Your task to perform on an android device: Open my contact list Image 0: 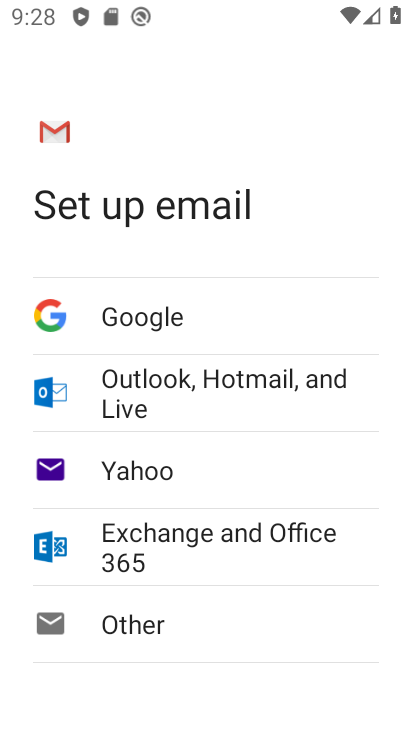
Step 0: press home button
Your task to perform on an android device: Open my contact list Image 1: 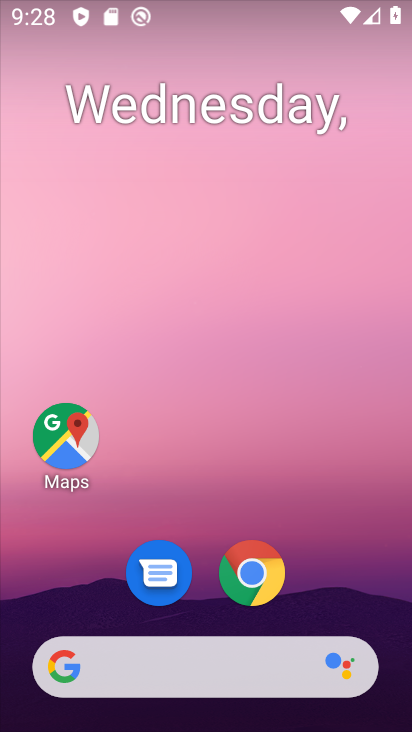
Step 1: drag from (307, 580) to (333, 274)
Your task to perform on an android device: Open my contact list Image 2: 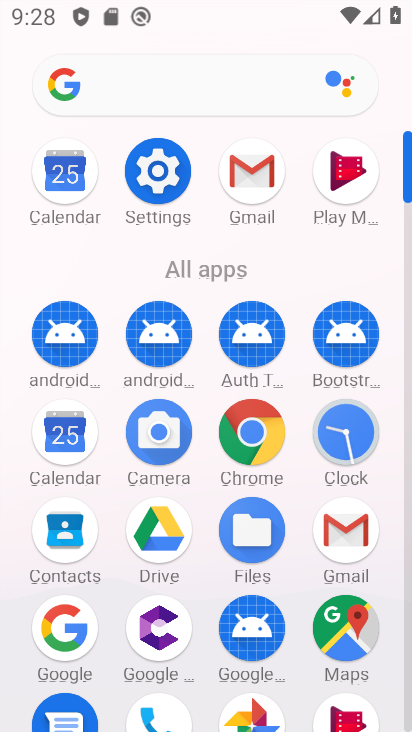
Step 2: drag from (219, 577) to (212, 316)
Your task to perform on an android device: Open my contact list Image 3: 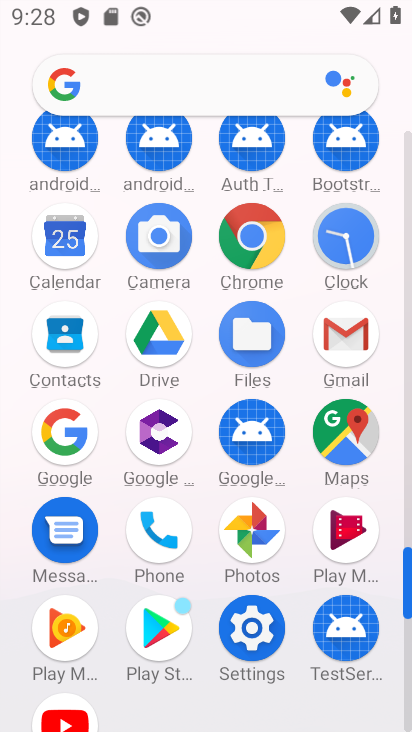
Step 3: click (154, 521)
Your task to perform on an android device: Open my contact list Image 4: 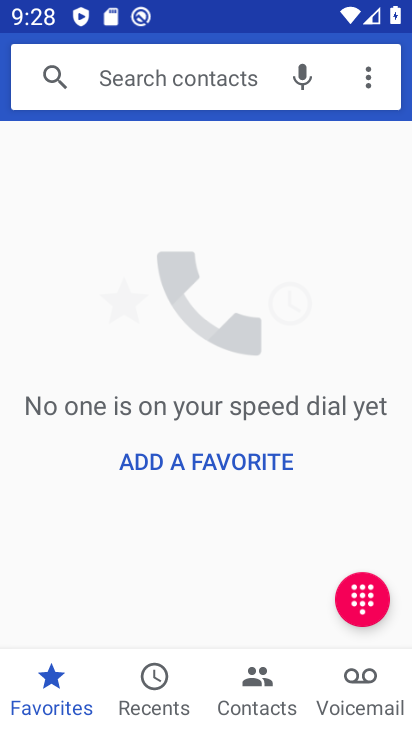
Step 4: click (246, 682)
Your task to perform on an android device: Open my contact list Image 5: 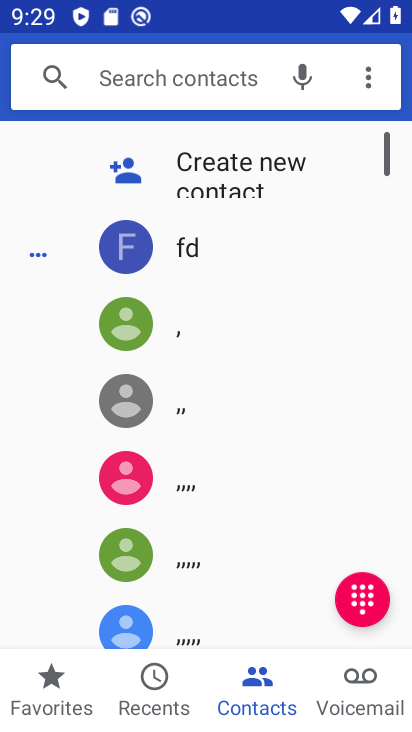
Step 5: task complete